Your task to perform on an android device: toggle sleep mode Image 0: 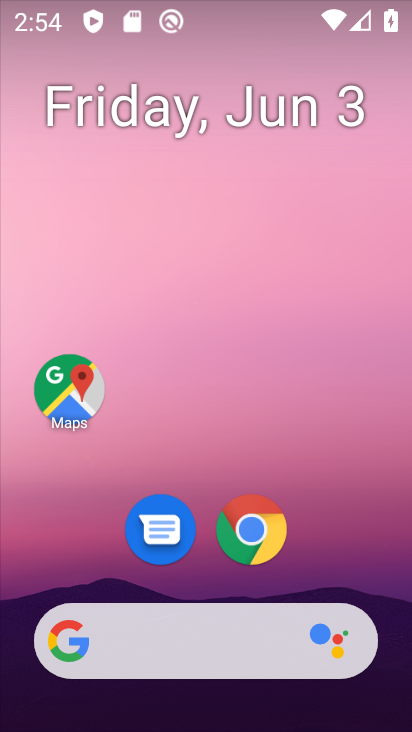
Step 0: drag from (381, 591) to (343, 3)
Your task to perform on an android device: toggle sleep mode Image 1: 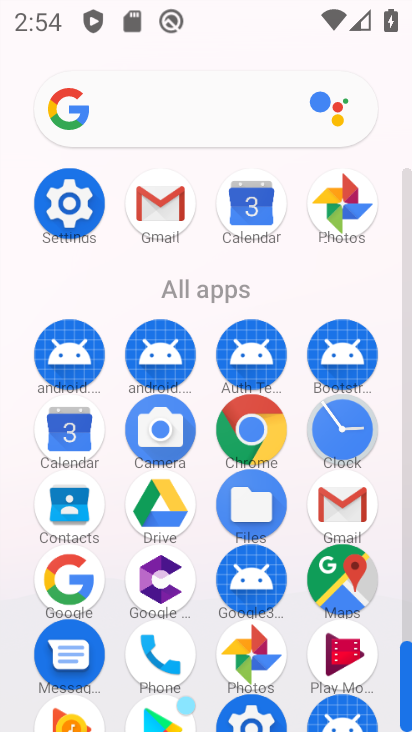
Step 1: click (75, 204)
Your task to perform on an android device: toggle sleep mode Image 2: 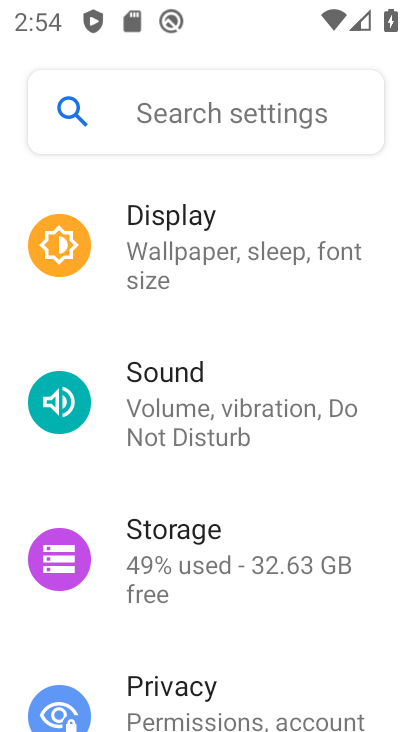
Step 2: click (170, 251)
Your task to perform on an android device: toggle sleep mode Image 3: 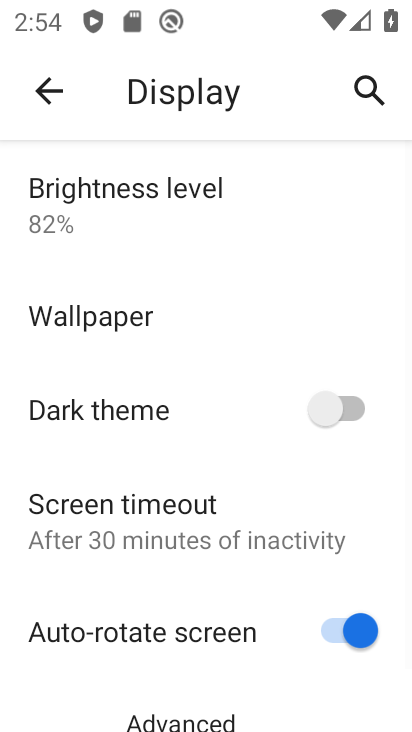
Step 3: click (128, 521)
Your task to perform on an android device: toggle sleep mode Image 4: 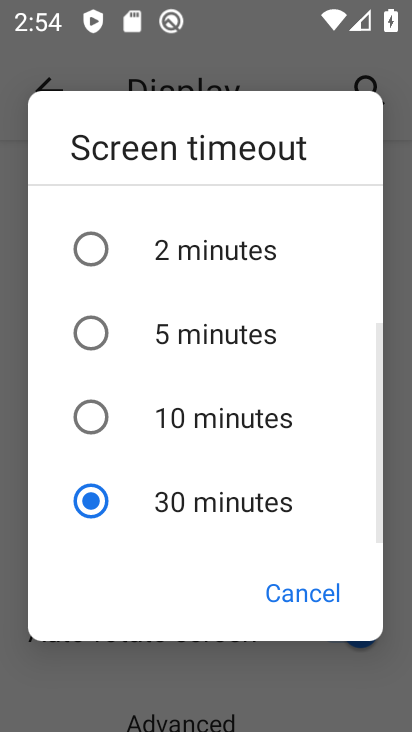
Step 4: click (100, 402)
Your task to perform on an android device: toggle sleep mode Image 5: 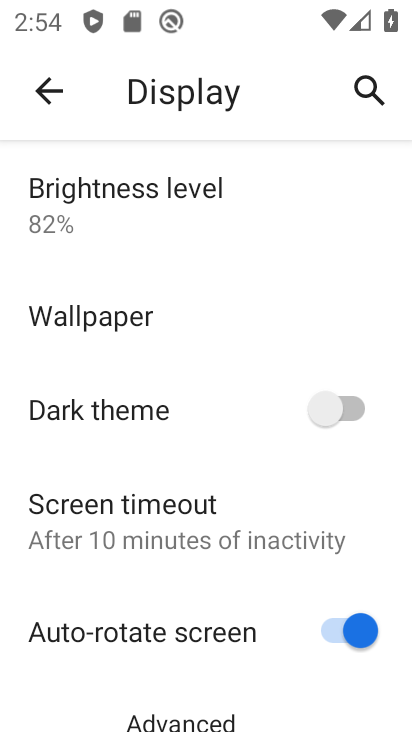
Step 5: task complete